Your task to perform on an android device: Open my contact list Image 0: 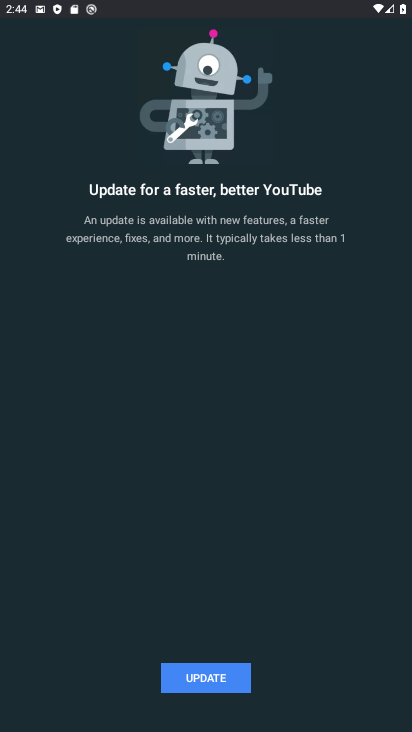
Step 0: press home button
Your task to perform on an android device: Open my contact list Image 1: 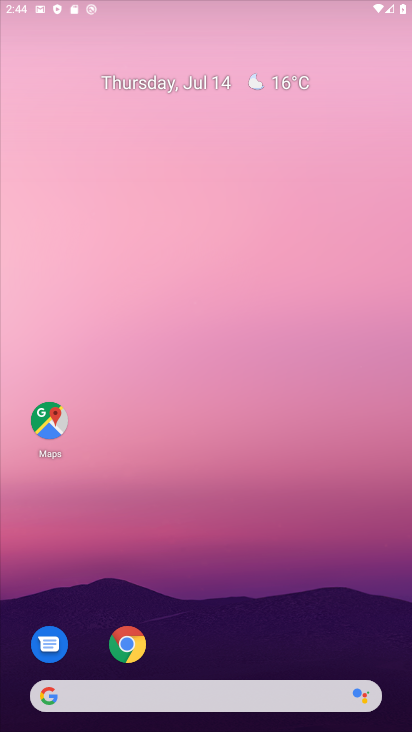
Step 1: drag from (248, 641) to (237, 101)
Your task to perform on an android device: Open my contact list Image 2: 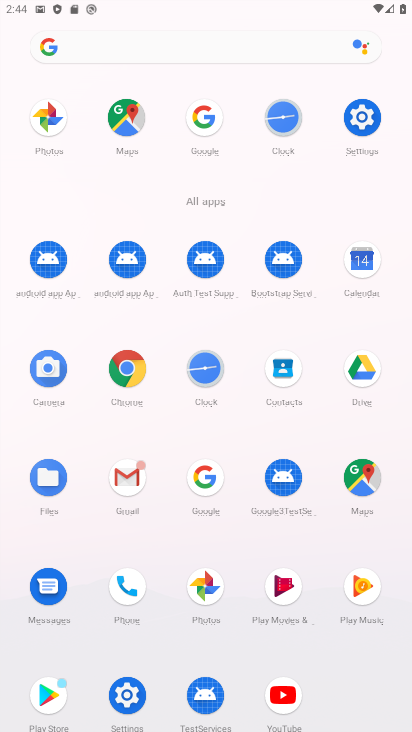
Step 2: click (286, 354)
Your task to perform on an android device: Open my contact list Image 3: 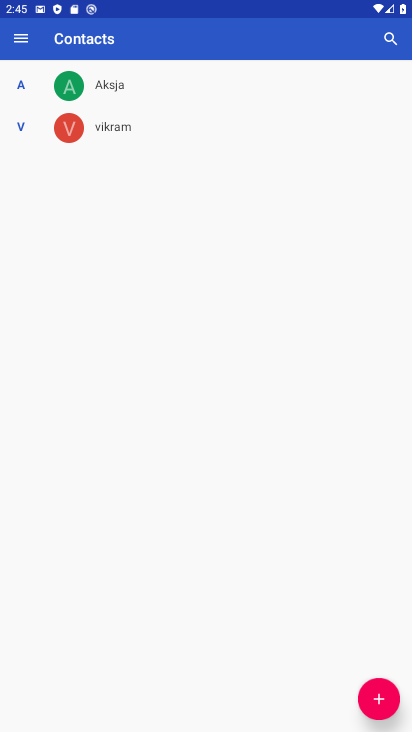
Step 3: task complete